Your task to perform on an android device: stop showing notifications on the lock screen Image 0: 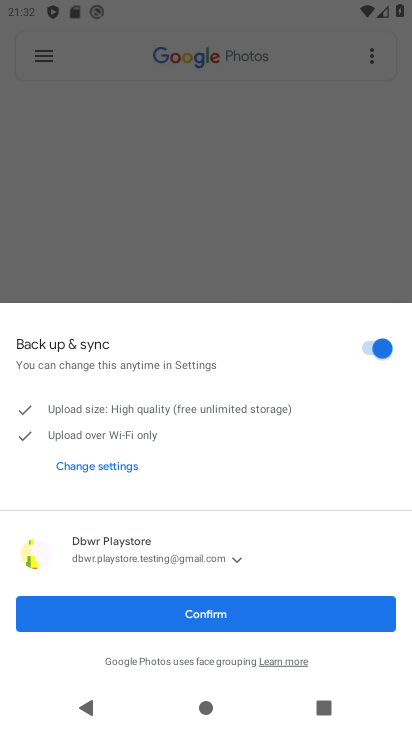
Step 0: press home button
Your task to perform on an android device: stop showing notifications on the lock screen Image 1: 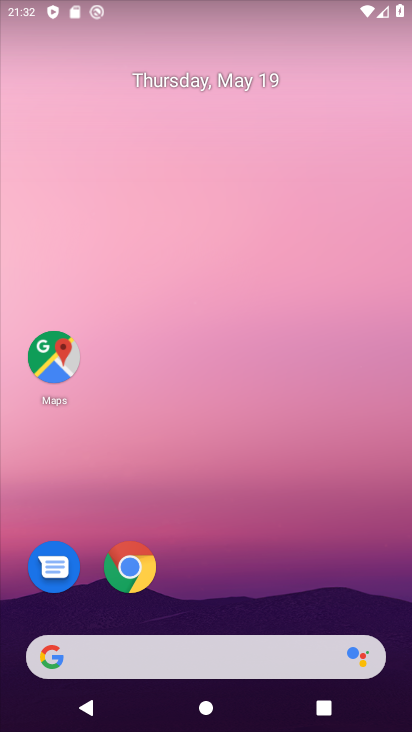
Step 1: drag from (200, 591) to (201, 110)
Your task to perform on an android device: stop showing notifications on the lock screen Image 2: 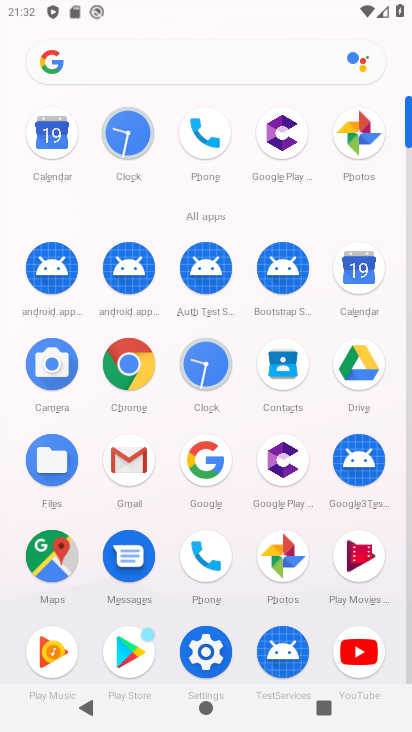
Step 2: click (204, 647)
Your task to perform on an android device: stop showing notifications on the lock screen Image 3: 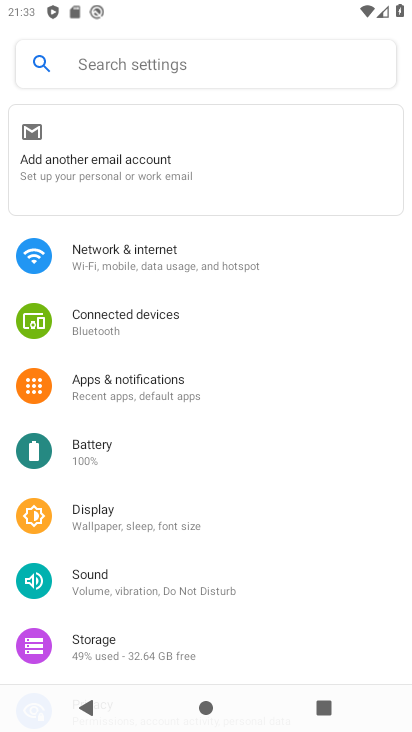
Step 3: click (163, 384)
Your task to perform on an android device: stop showing notifications on the lock screen Image 4: 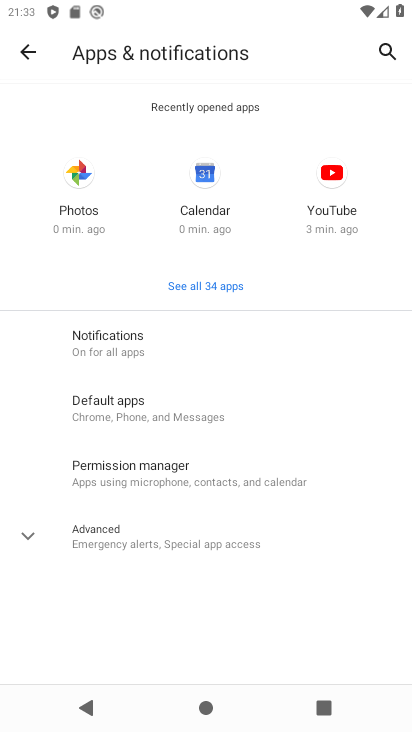
Step 4: click (84, 346)
Your task to perform on an android device: stop showing notifications on the lock screen Image 5: 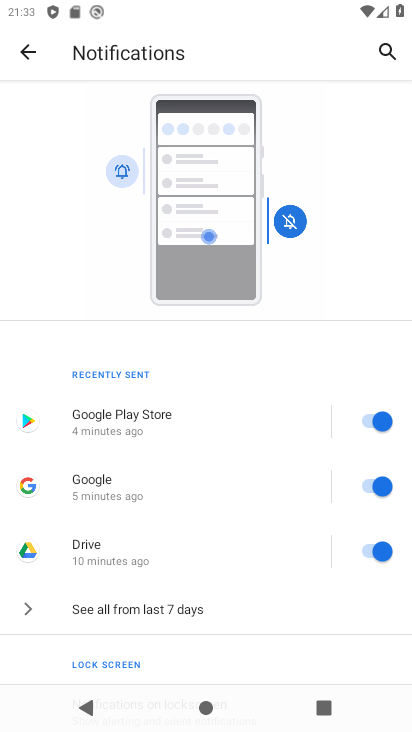
Step 5: drag from (197, 581) to (188, 311)
Your task to perform on an android device: stop showing notifications on the lock screen Image 6: 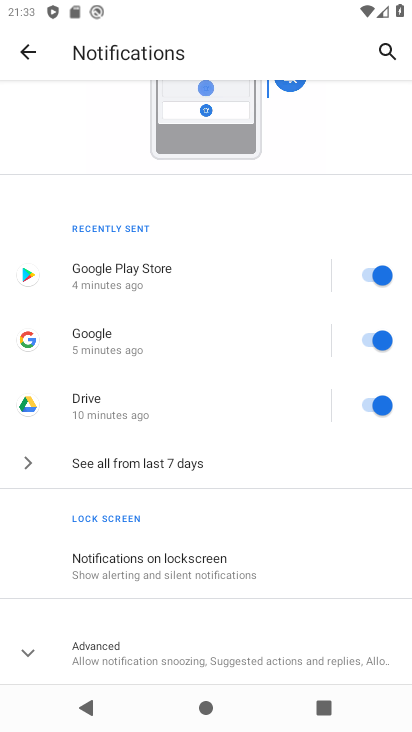
Step 6: click (178, 565)
Your task to perform on an android device: stop showing notifications on the lock screen Image 7: 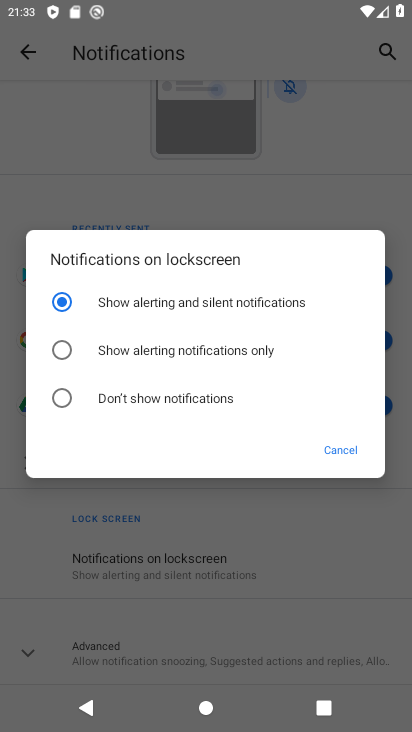
Step 7: click (52, 395)
Your task to perform on an android device: stop showing notifications on the lock screen Image 8: 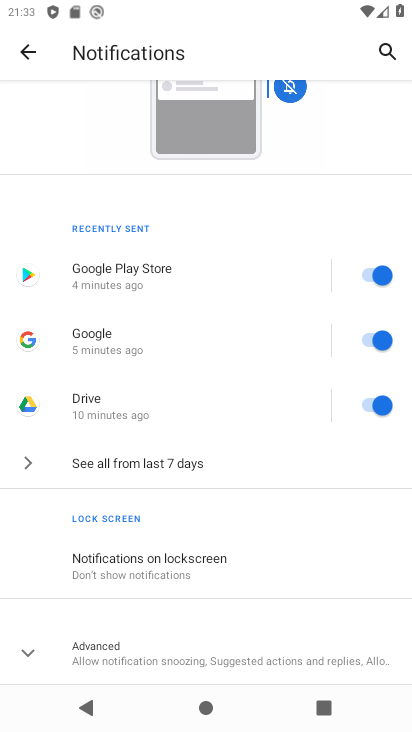
Step 8: task complete